Your task to perform on an android device: open a bookmark in the chrome app Image 0: 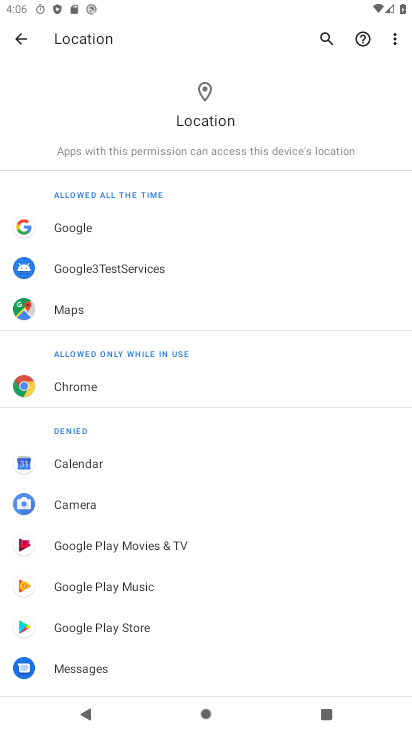
Step 0: press home button
Your task to perform on an android device: open a bookmark in the chrome app Image 1: 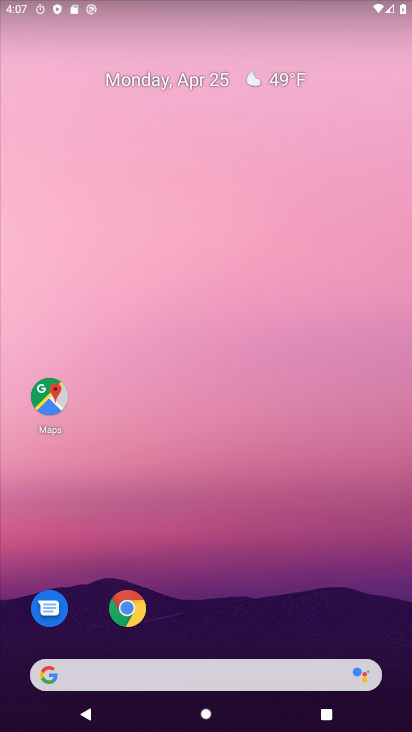
Step 1: click (131, 603)
Your task to perform on an android device: open a bookmark in the chrome app Image 2: 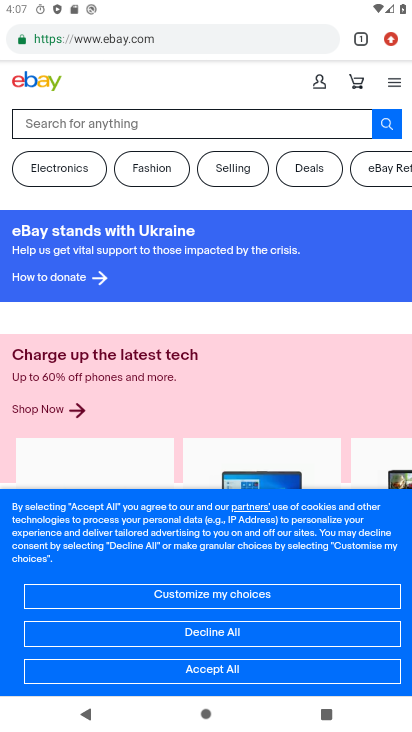
Step 2: click (391, 39)
Your task to perform on an android device: open a bookmark in the chrome app Image 3: 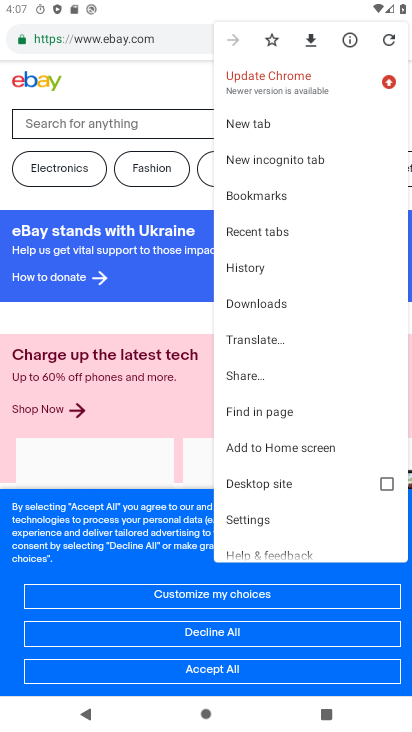
Step 3: click (295, 201)
Your task to perform on an android device: open a bookmark in the chrome app Image 4: 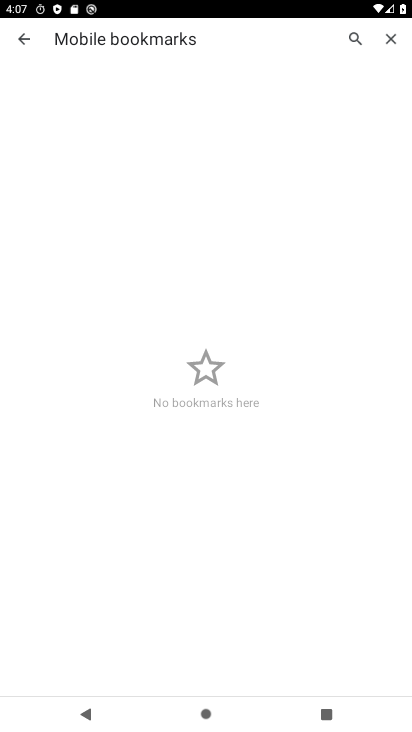
Step 4: task complete